Your task to perform on an android device: Open Google Maps Image 0: 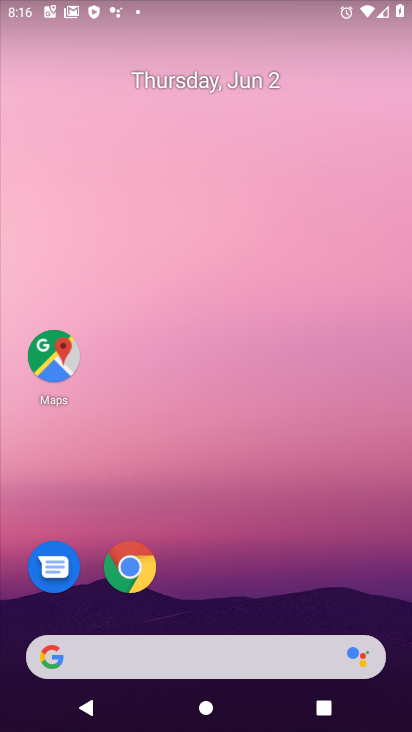
Step 0: click (52, 358)
Your task to perform on an android device: Open Google Maps Image 1: 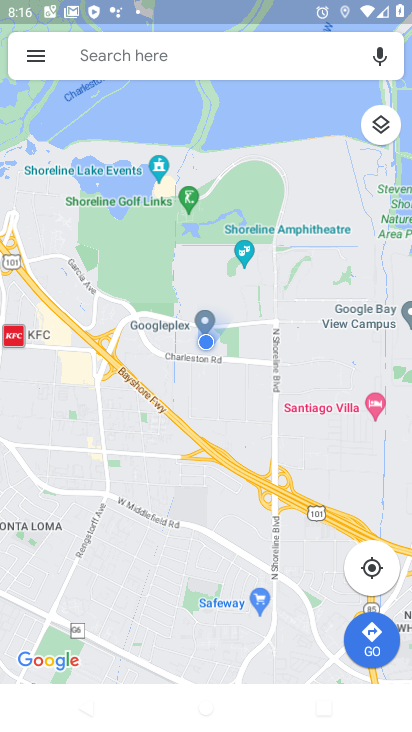
Step 1: task complete